Your task to perform on an android device: Open Chrome and go to settings Image 0: 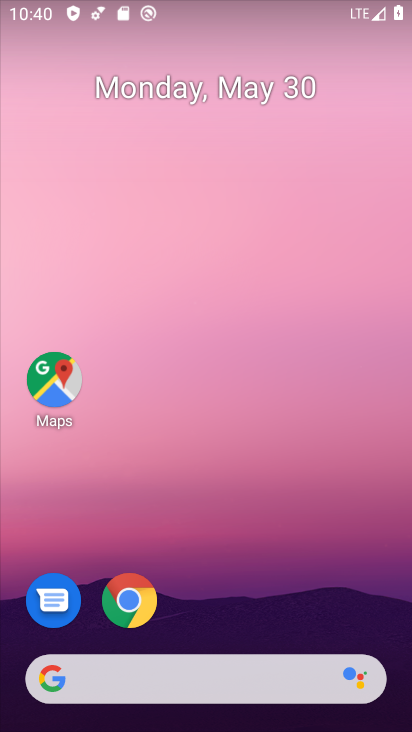
Step 0: click (133, 613)
Your task to perform on an android device: Open Chrome and go to settings Image 1: 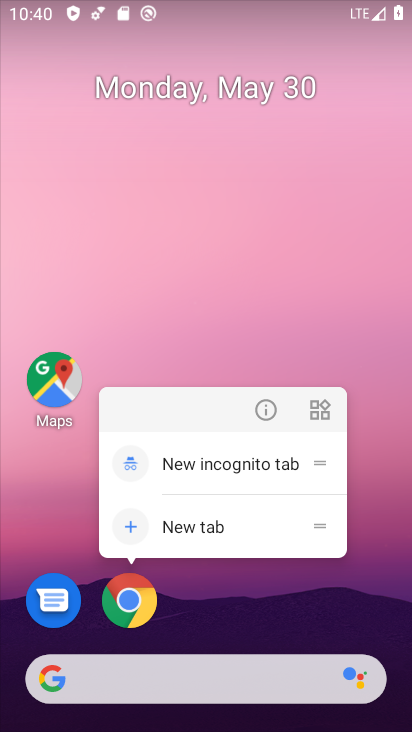
Step 1: click (262, 596)
Your task to perform on an android device: Open Chrome and go to settings Image 2: 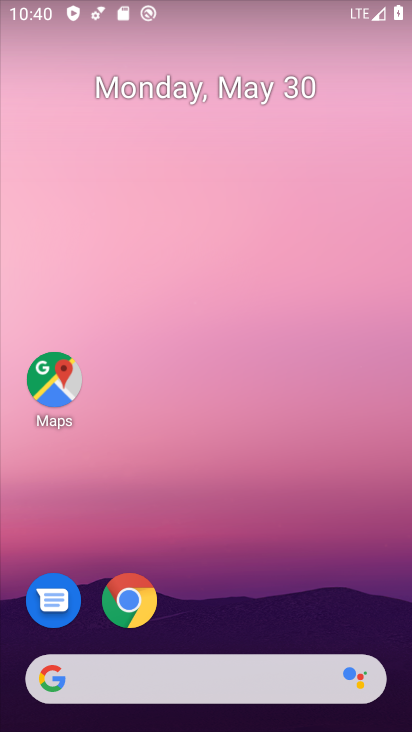
Step 2: drag from (301, 621) to (337, 113)
Your task to perform on an android device: Open Chrome and go to settings Image 3: 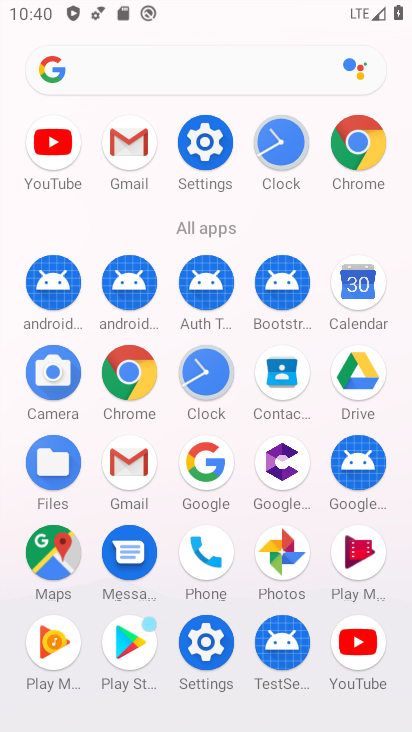
Step 3: click (125, 357)
Your task to perform on an android device: Open Chrome and go to settings Image 4: 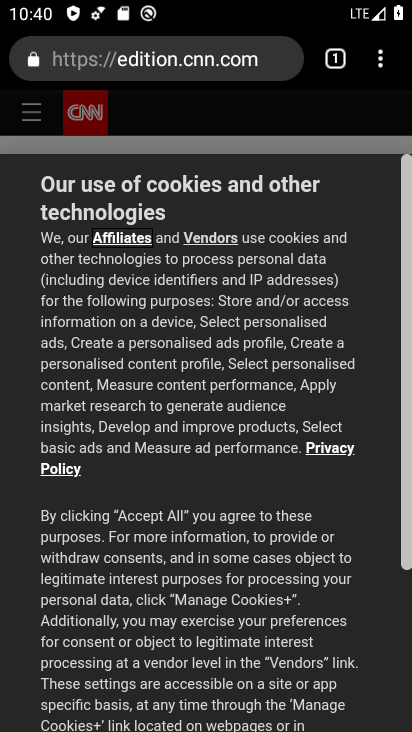
Step 4: task complete